Your task to perform on an android device: Check the weather Image 0: 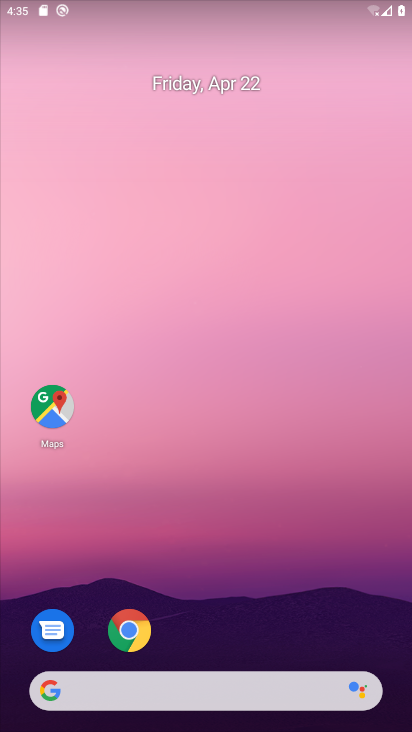
Step 0: drag from (244, 602) to (301, 39)
Your task to perform on an android device: Check the weather Image 1: 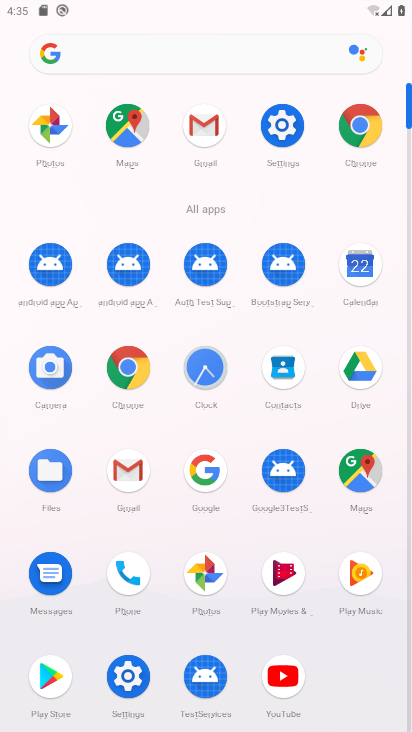
Step 1: click (139, 58)
Your task to perform on an android device: Check the weather Image 2: 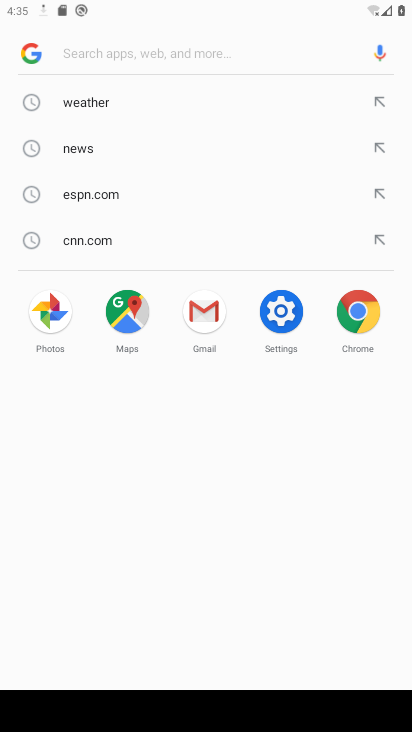
Step 2: type "weather"
Your task to perform on an android device: Check the weather Image 3: 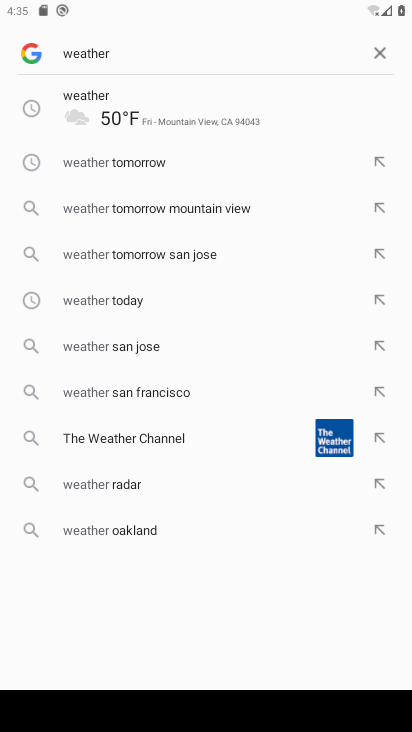
Step 3: click (148, 128)
Your task to perform on an android device: Check the weather Image 4: 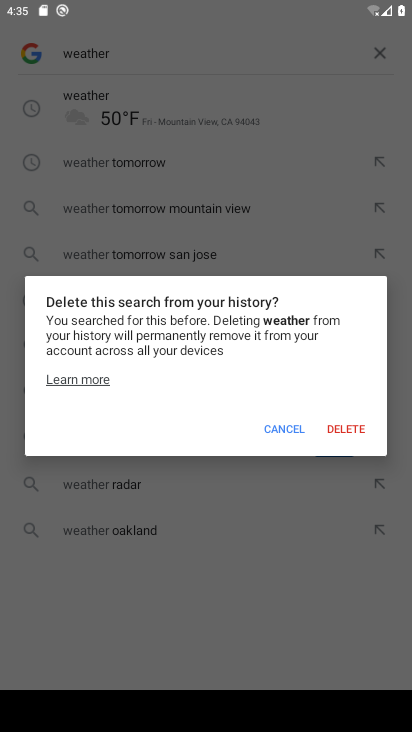
Step 4: click (298, 425)
Your task to perform on an android device: Check the weather Image 5: 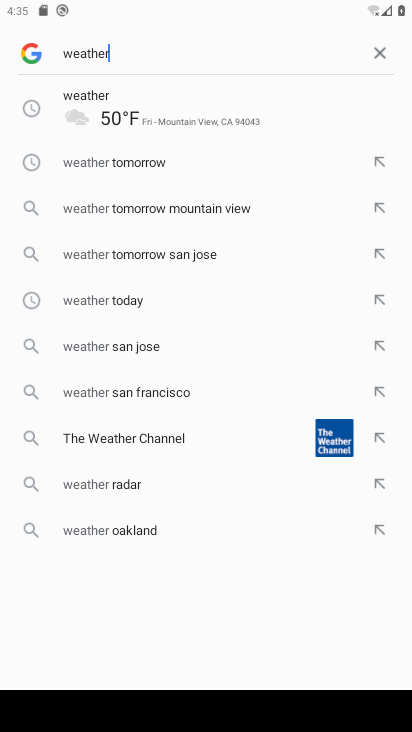
Step 5: click (200, 122)
Your task to perform on an android device: Check the weather Image 6: 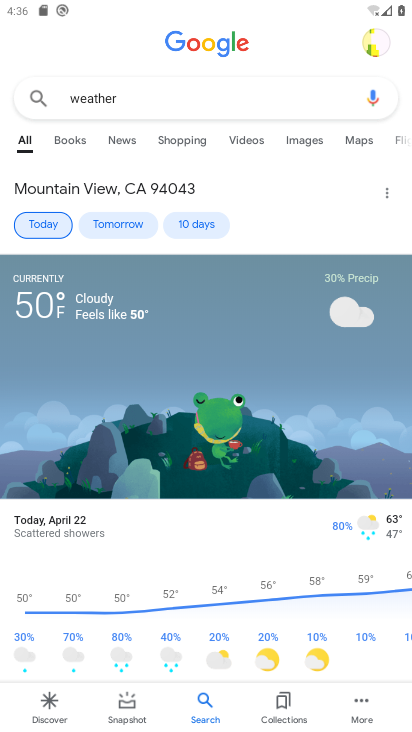
Step 6: task complete